Your task to perform on an android device: Open Chrome and go to settings Image 0: 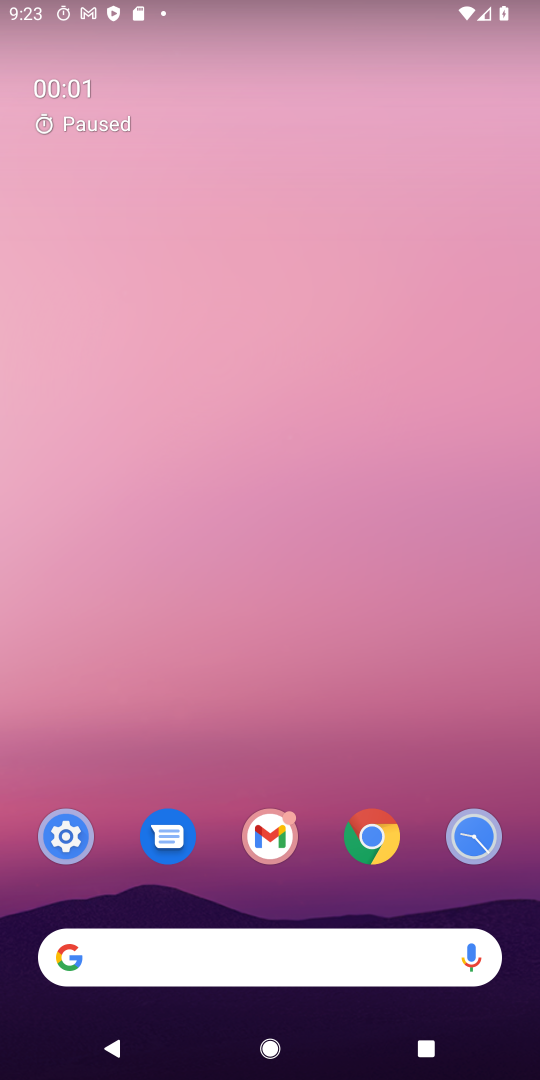
Step 0: drag from (413, 896) to (383, 15)
Your task to perform on an android device: Open Chrome and go to settings Image 1: 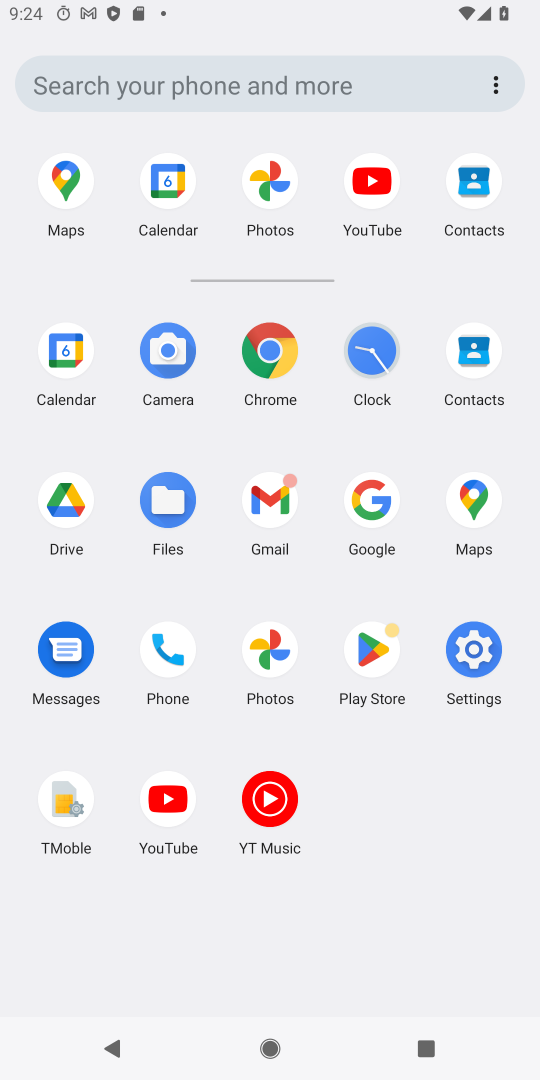
Step 1: click (275, 347)
Your task to perform on an android device: Open Chrome and go to settings Image 2: 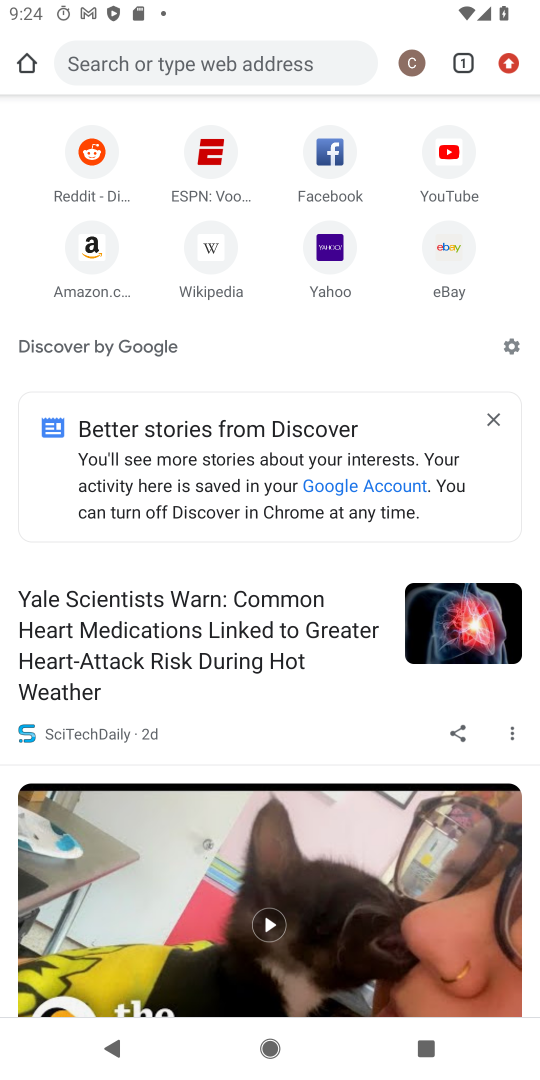
Step 2: click (514, 71)
Your task to perform on an android device: Open Chrome and go to settings Image 3: 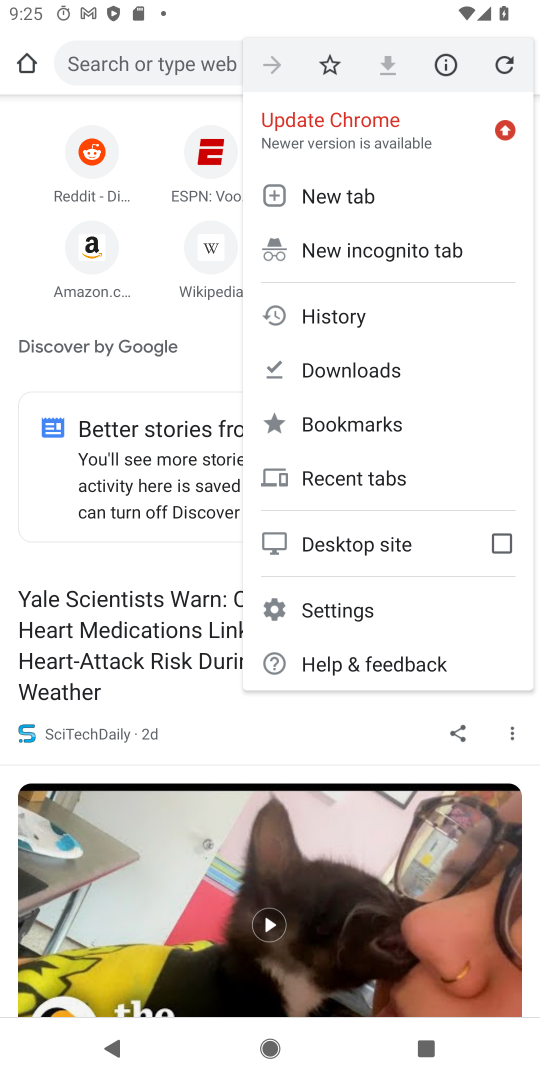
Step 3: click (357, 614)
Your task to perform on an android device: Open Chrome and go to settings Image 4: 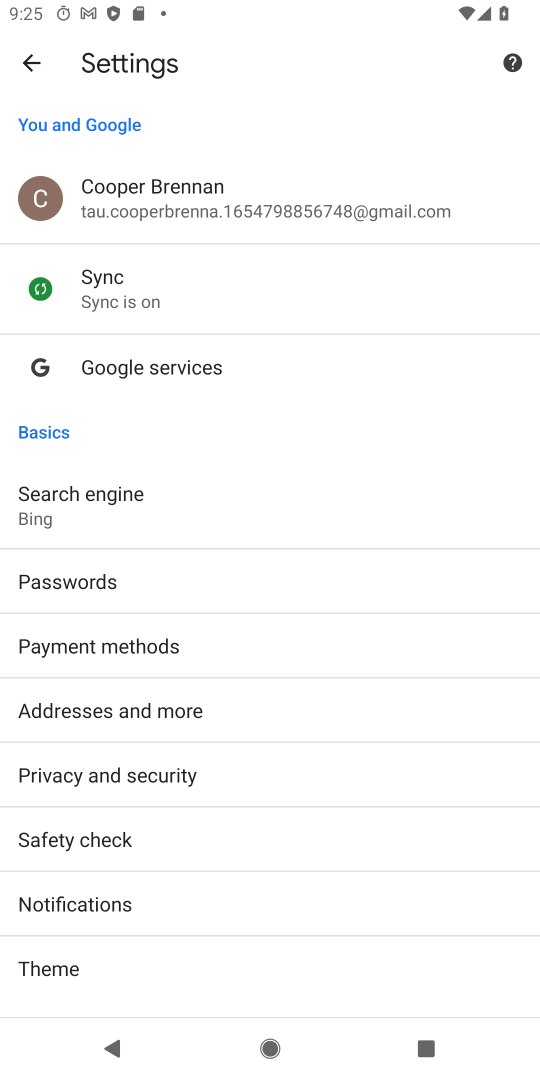
Step 4: task complete